Your task to perform on an android device: delete location history Image 0: 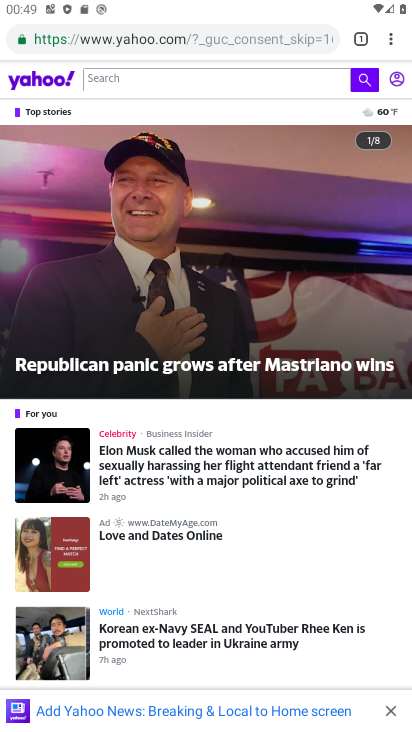
Step 0: press home button
Your task to perform on an android device: delete location history Image 1: 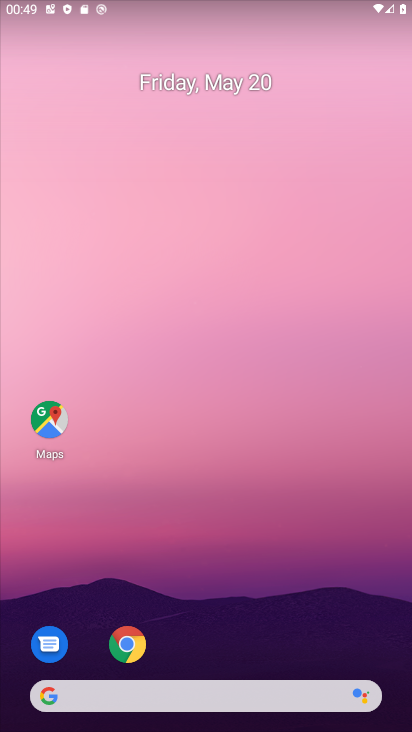
Step 1: click (42, 423)
Your task to perform on an android device: delete location history Image 2: 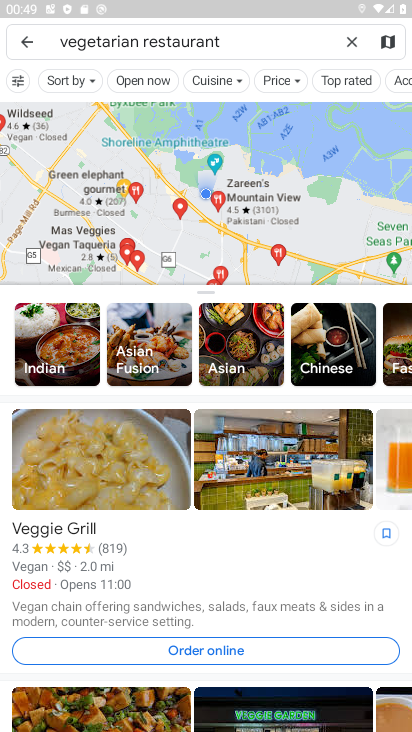
Step 2: click (356, 44)
Your task to perform on an android device: delete location history Image 3: 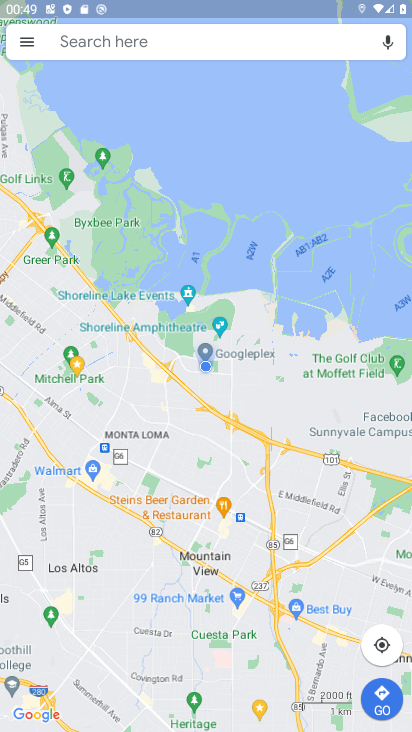
Step 3: click (24, 47)
Your task to perform on an android device: delete location history Image 4: 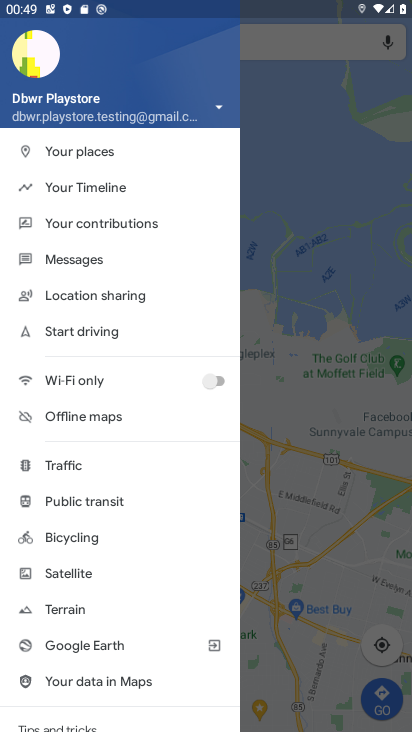
Step 4: click (91, 195)
Your task to perform on an android device: delete location history Image 5: 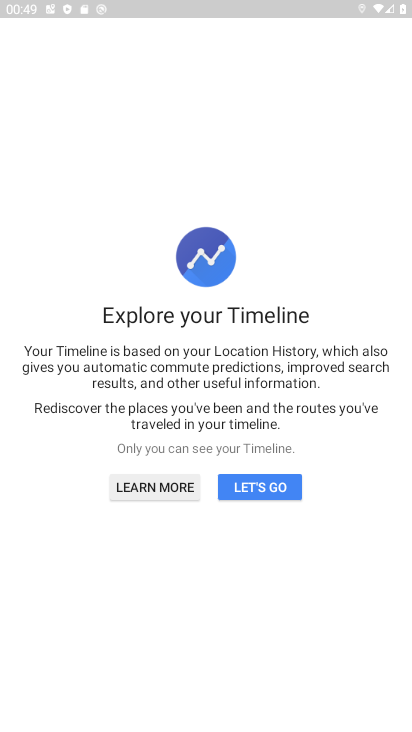
Step 5: click (263, 497)
Your task to perform on an android device: delete location history Image 6: 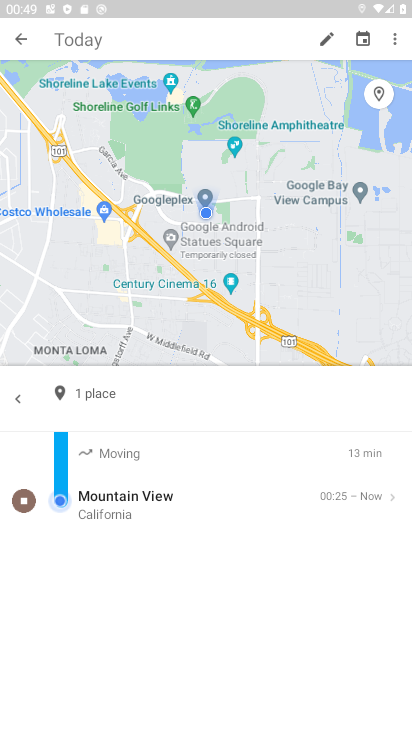
Step 6: click (391, 41)
Your task to perform on an android device: delete location history Image 7: 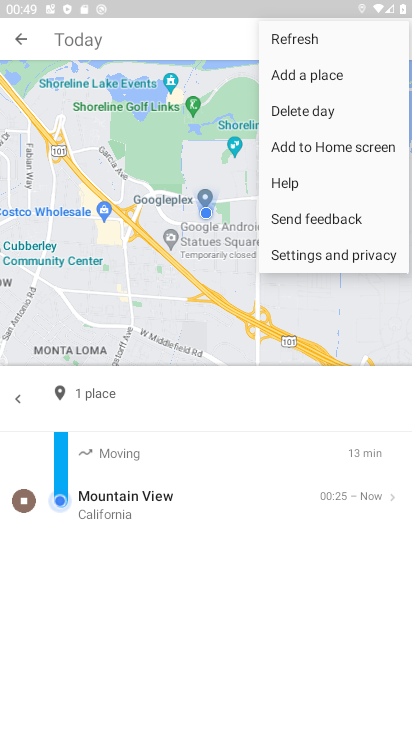
Step 7: click (310, 256)
Your task to perform on an android device: delete location history Image 8: 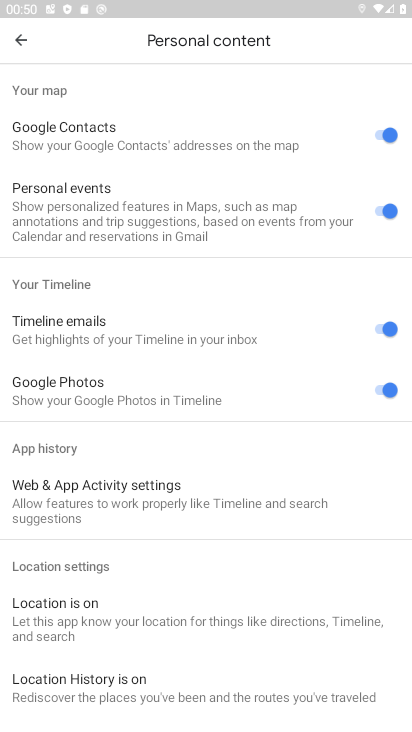
Step 8: drag from (125, 584) to (124, 413)
Your task to perform on an android device: delete location history Image 9: 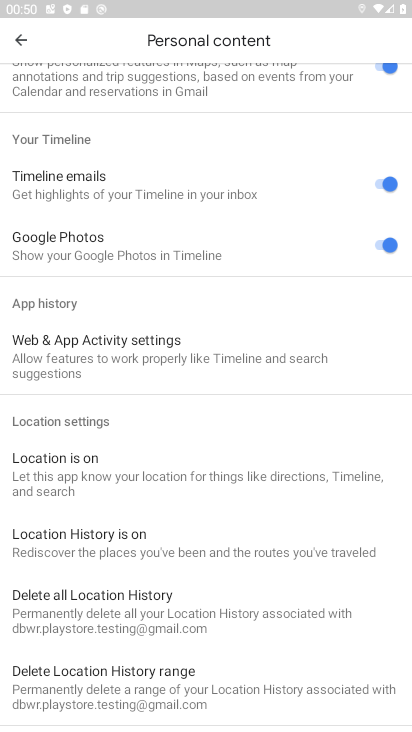
Step 9: click (117, 607)
Your task to perform on an android device: delete location history Image 10: 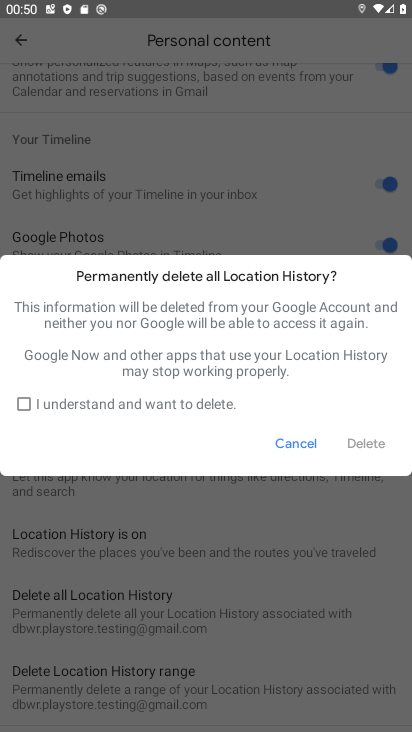
Step 10: click (26, 406)
Your task to perform on an android device: delete location history Image 11: 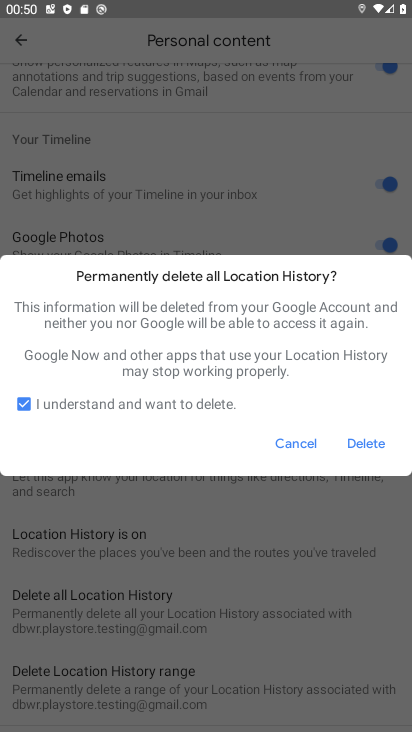
Step 11: click (356, 458)
Your task to perform on an android device: delete location history Image 12: 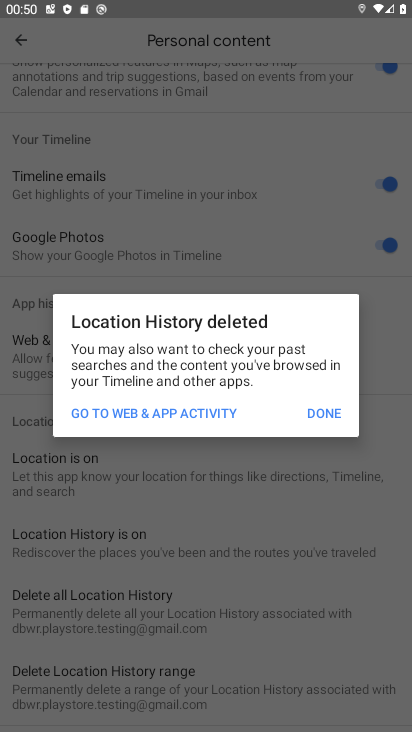
Step 12: click (316, 418)
Your task to perform on an android device: delete location history Image 13: 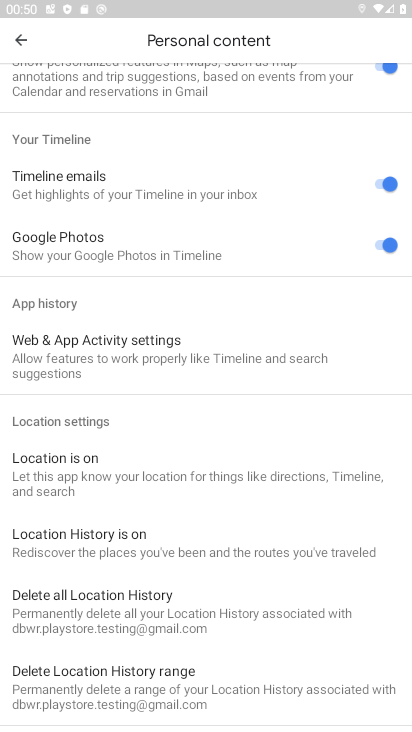
Step 13: task complete